Your task to perform on an android device: Open the calendar and show me this week's events Image 0: 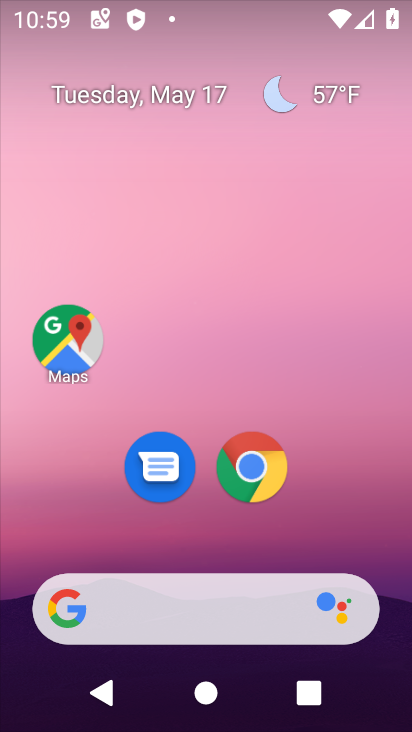
Step 0: drag from (202, 569) to (157, 78)
Your task to perform on an android device: Open the calendar and show me this week's events Image 1: 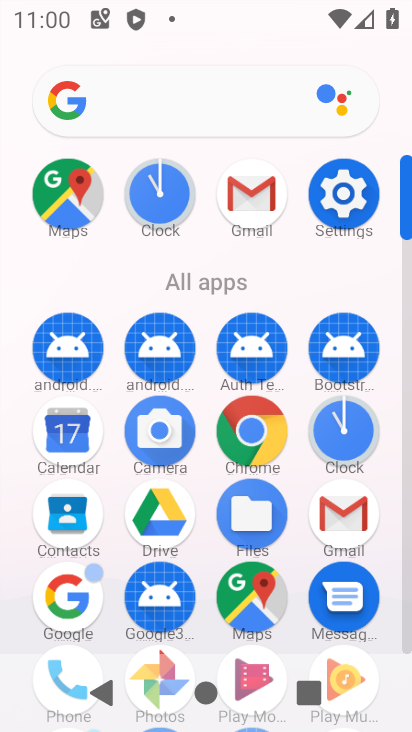
Step 1: click (78, 432)
Your task to perform on an android device: Open the calendar and show me this week's events Image 2: 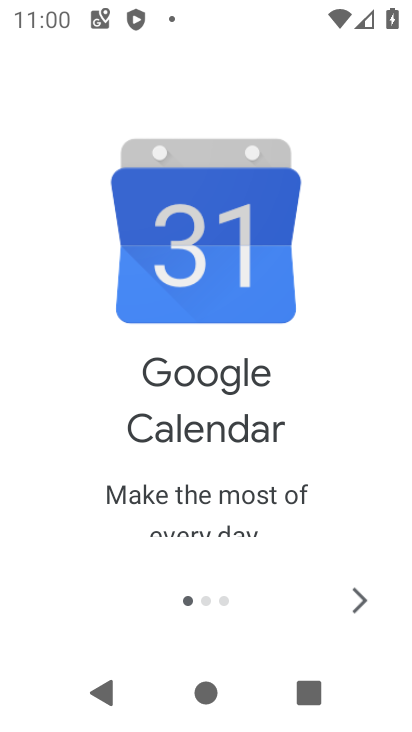
Step 2: click (361, 603)
Your task to perform on an android device: Open the calendar and show me this week's events Image 3: 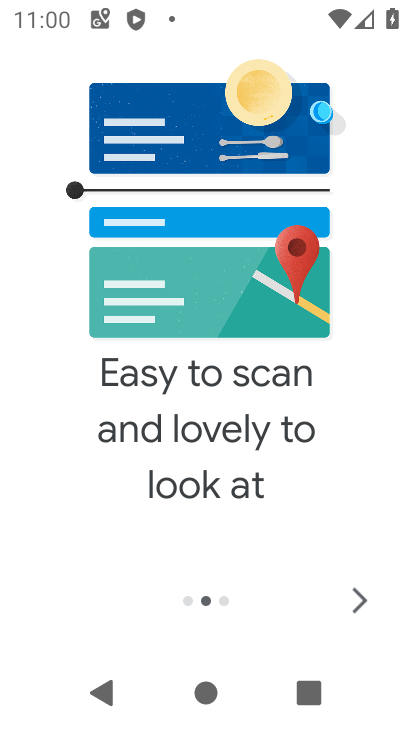
Step 3: click (359, 598)
Your task to perform on an android device: Open the calendar and show me this week's events Image 4: 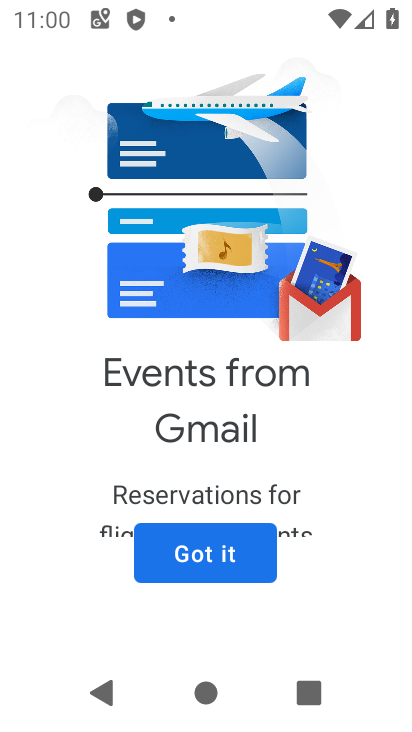
Step 4: click (218, 561)
Your task to perform on an android device: Open the calendar and show me this week's events Image 5: 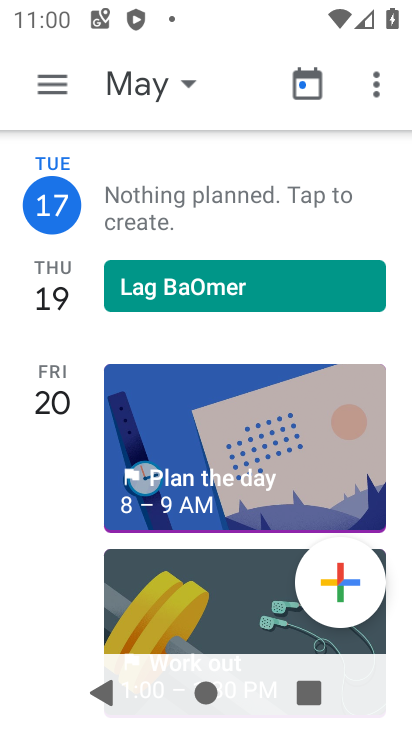
Step 5: drag from (187, 502) to (194, 323)
Your task to perform on an android device: Open the calendar and show me this week's events Image 6: 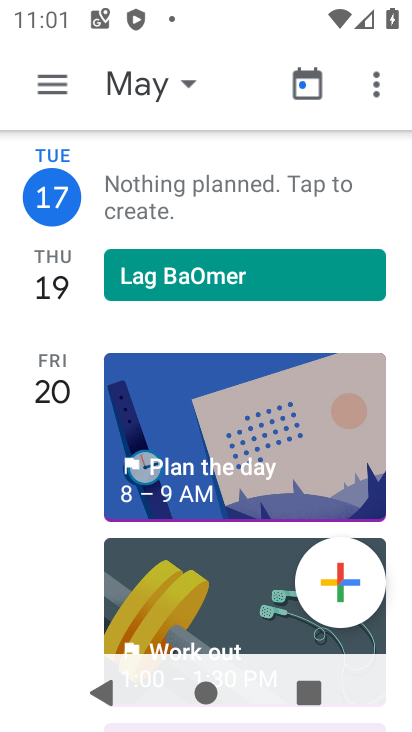
Step 6: click (203, 480)
Your task to perform on an android device: Open the calendar and show me this week's events Image 7: 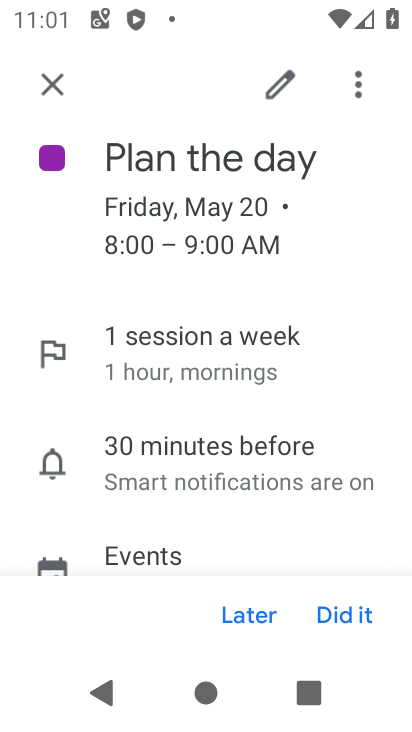
Step 7: click (48, 89)
Your task to perform on an android device: Open the calendar and show me this week's events Image 8: 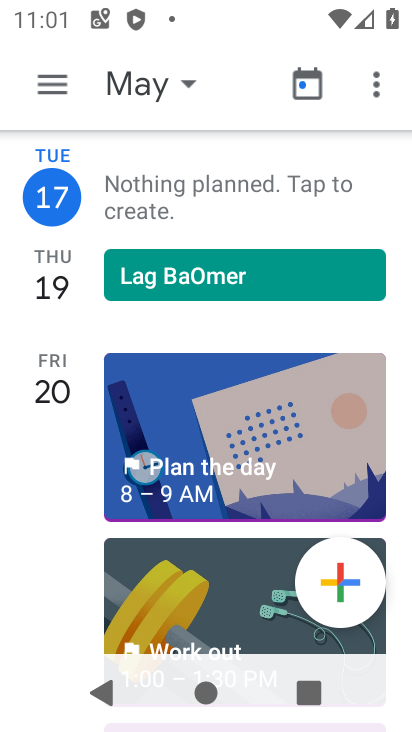
Step 8: task complete